Your task to perform on an android device: add a contact in the contacts app Image 0: 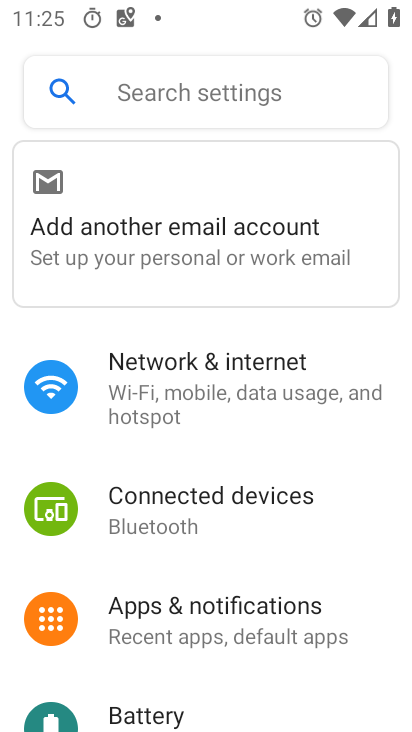
Step 0: press home button
Your task to perform on an android device: add a contact in the contacts app Image 1: 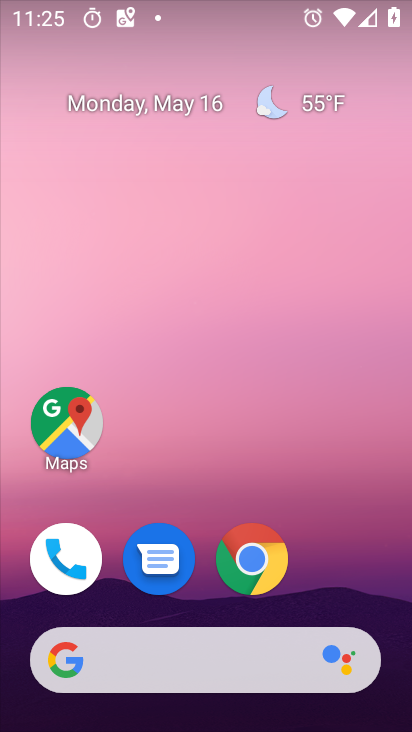
Step 1: drag from (299, 596) to (335, 24)
Your task to perform on an android device: add a contact in the contacts app Image 2: 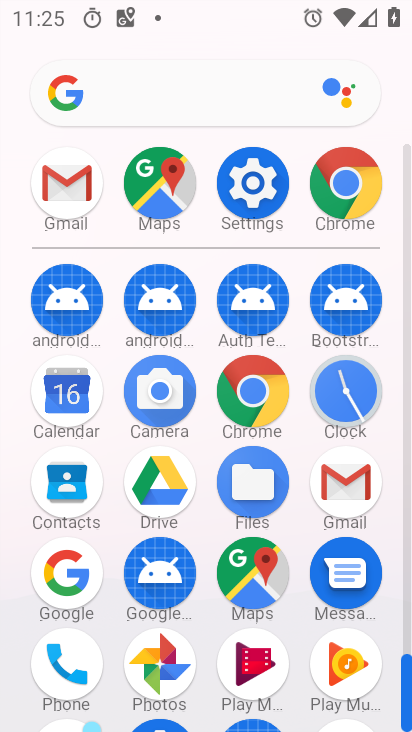
Step 2: click (78, 509)
Your task to perform on an android device: add a contact in the contacts app Image 3: 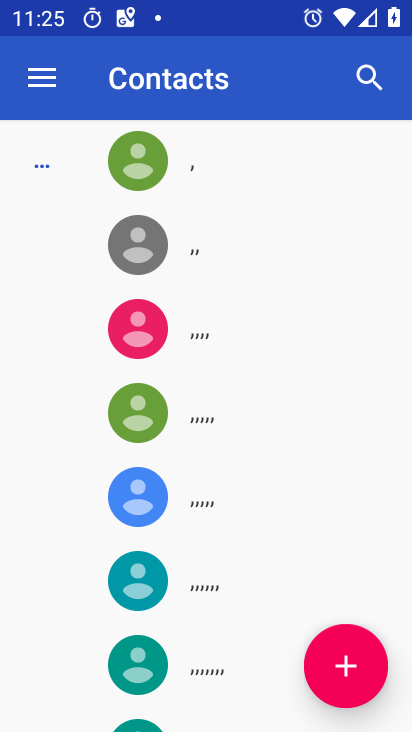
Step 3: click (353, 689)
Your task to perform on an android device: add a contact in the contacts app Image 4: 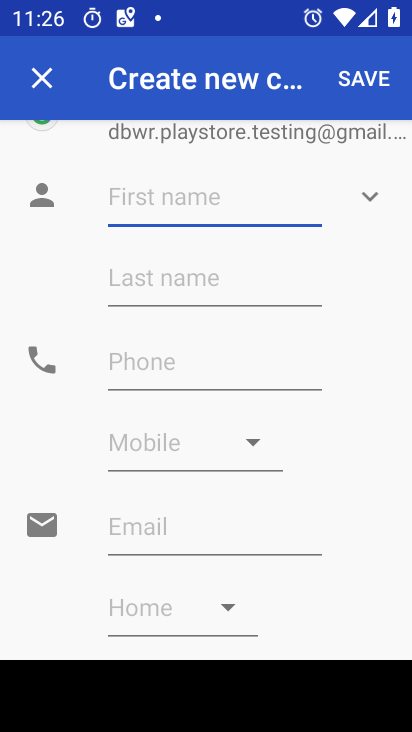
Step 4: type "gta"
Your task to perform on an android device: add a contact in the contacts app Image 5: 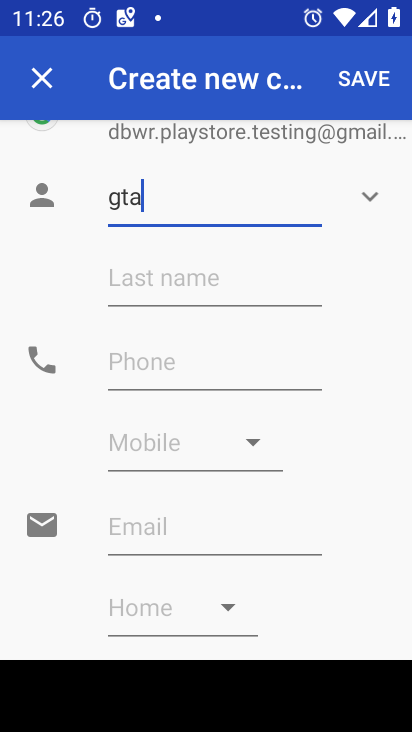
Step 5: type ""
Your task to perform on an android device: add a contact in the contacts app Image 6: 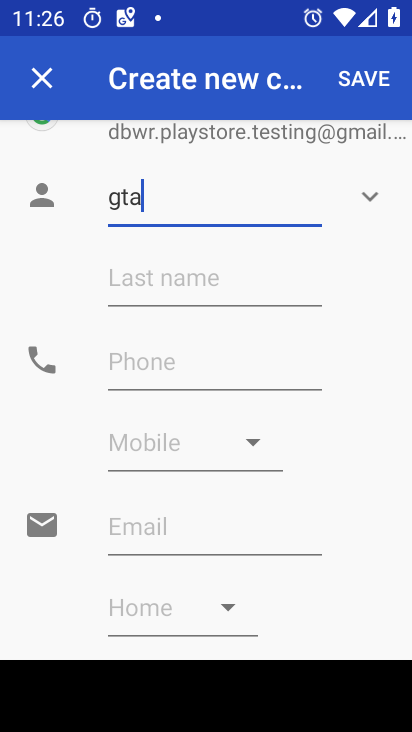
Step 6: click (377, 81)
Your task to perform on an android device: add a contact in the contacts app Image 7: 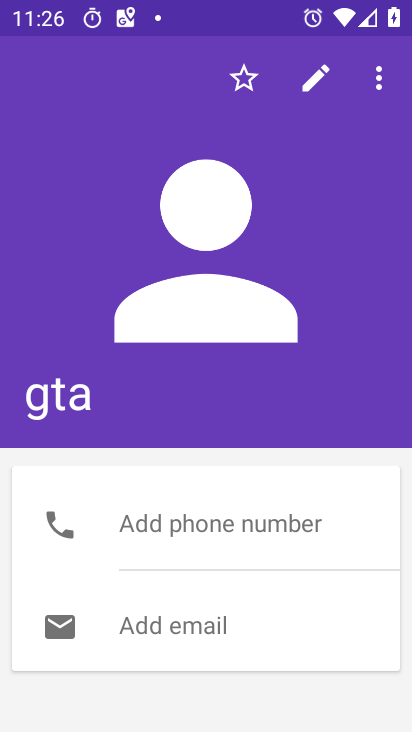
Step 7: task complete